Your task to perform on an android device: change your default location settings in chrome Image 0: 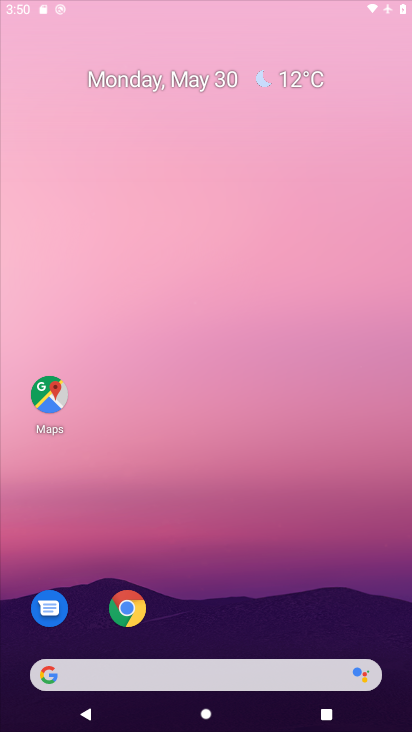
Step 0: drag from (256, 573) to (195, 42)
Your task to perform on an android device: change your default location settings in chrome Image 1: 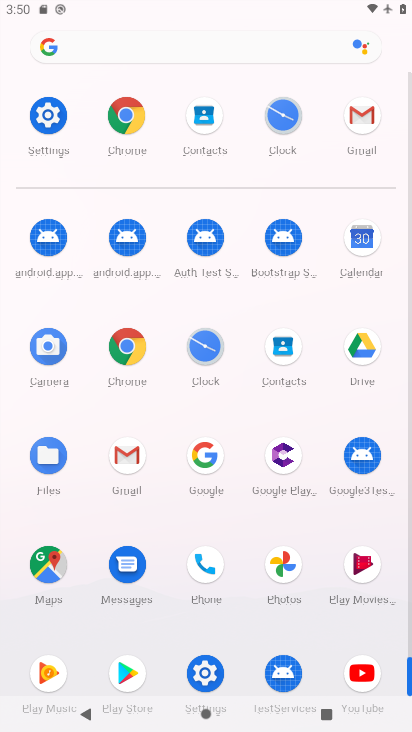
Step 1: click (124, 346)
Your task to perform on an android device: change your default location settings in chrome Image 2: 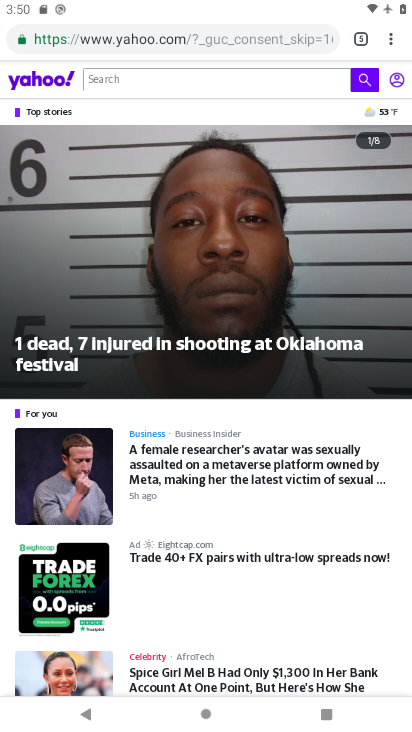
Step 2: click (394, 36)
Your task to perform on an android device: change your default location settings in chrome Image 3: 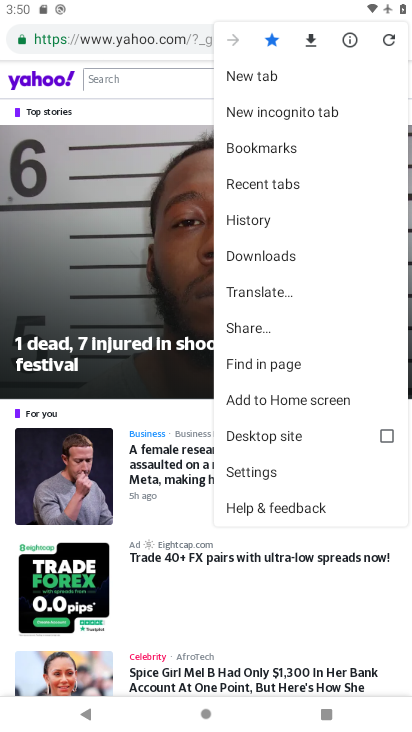
Step 3: click (279, 464)
Your task to perform on an android device: change your default location settings in chrome Image 4: 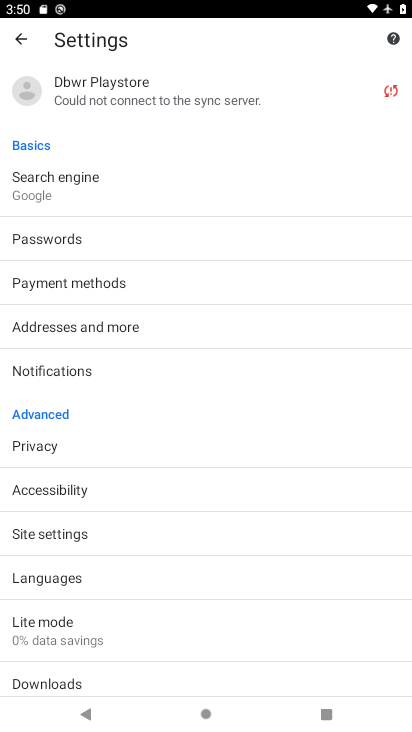
Step 4: click (87, 530)
Your task to perform on an android device: change your default location settings in chrome Image 5: 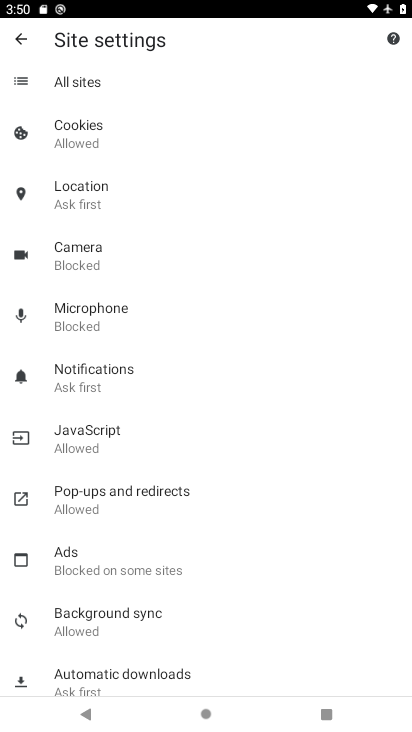
Step 5: click (115, 184)
Your task to perform on an android device: change your default location settings in chrome Image 6: 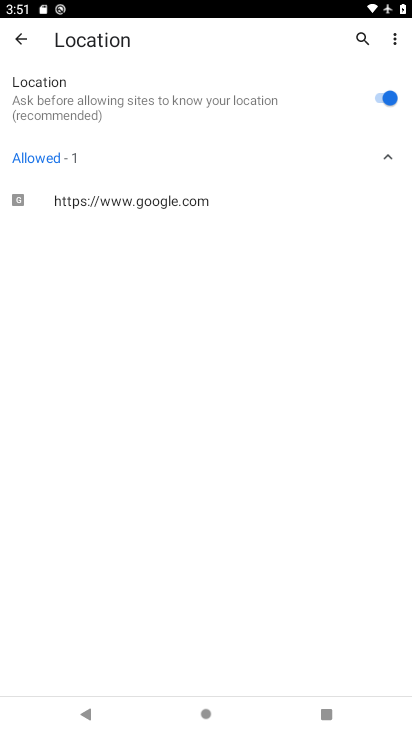
Step 6: click (383, 103)
Your task to perform on an android device: change your default location settings in chrome Image 7: 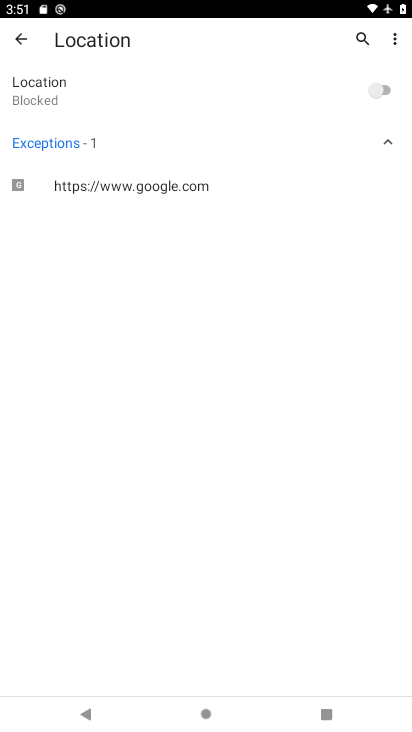
Step 7: task complete